Your task to perform on an android device: toggle notification dots Image 0: 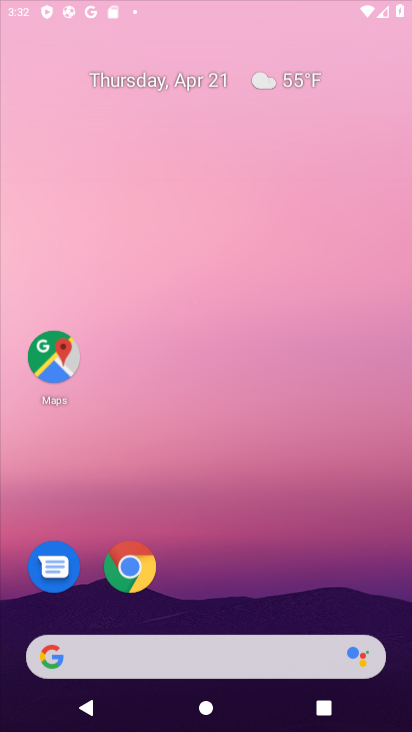
Step 0: click (235, 135)
Your task to perform on an android device: toggle notification dots Image 1: 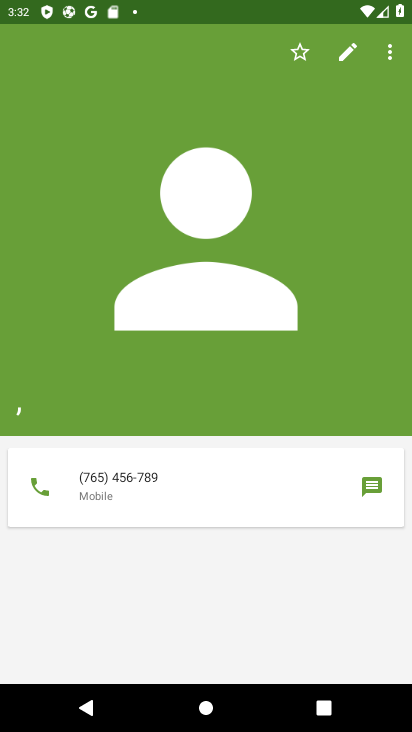
Step 1: press home button
Your task to perform on an android device: toggle notification dots Image 2: 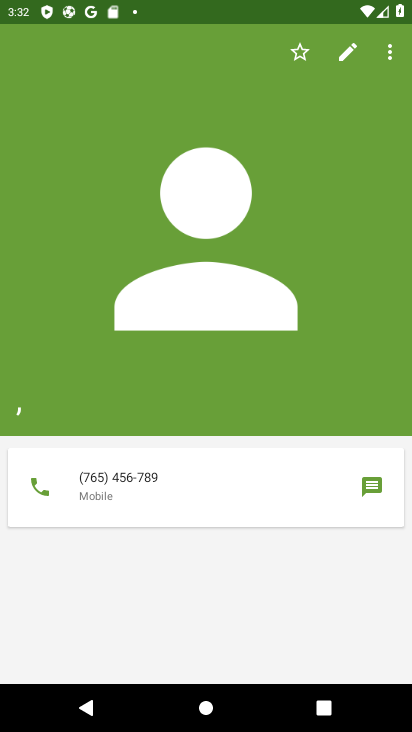
Step 2: press home button
Your task to perform on an android device: toggle notification dots Image 3: 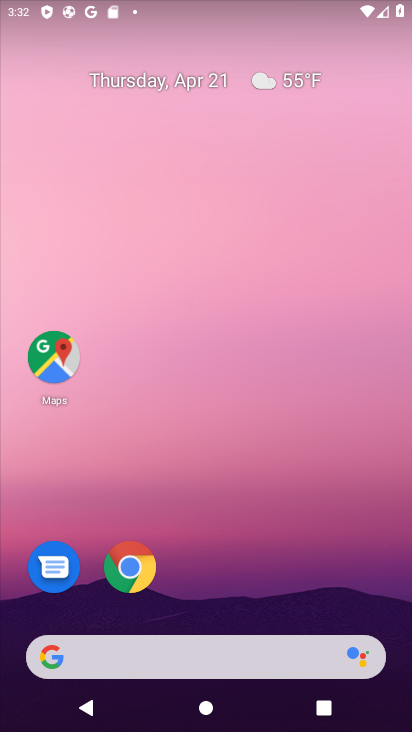
Step 3: drag from (231, 612) to (283, 119)
Your task to perform on an android device: toggle notification dots Image 4: 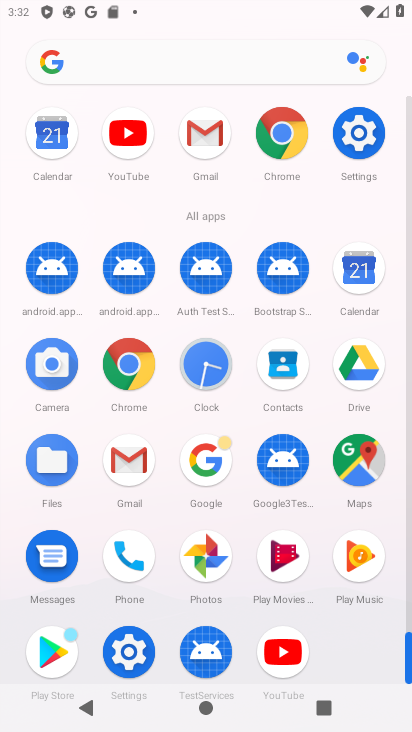
Step 4: click (127, 646)
Your task to perform on an android device: toggle notification dots Image 5: 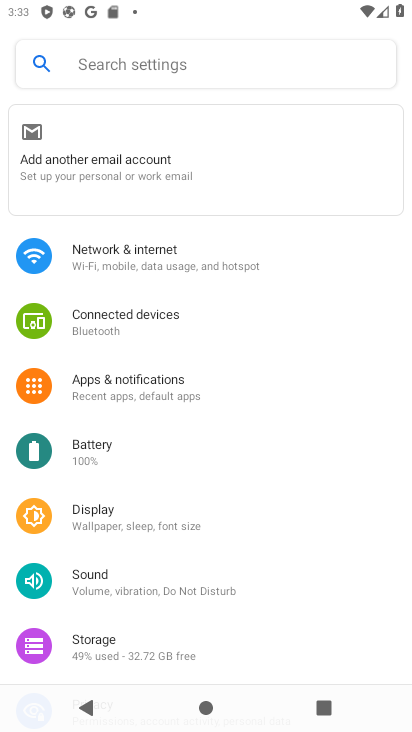
Step 5: click (137, 389)
Your task to perform on an android device: toggle notification dots Image 6: 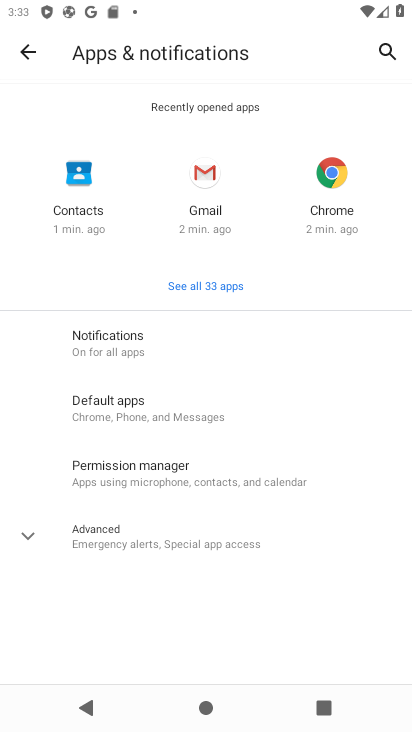
Step 6: click (159, 338)
Your task to perform on an android device: toggle notification dots Image 7: 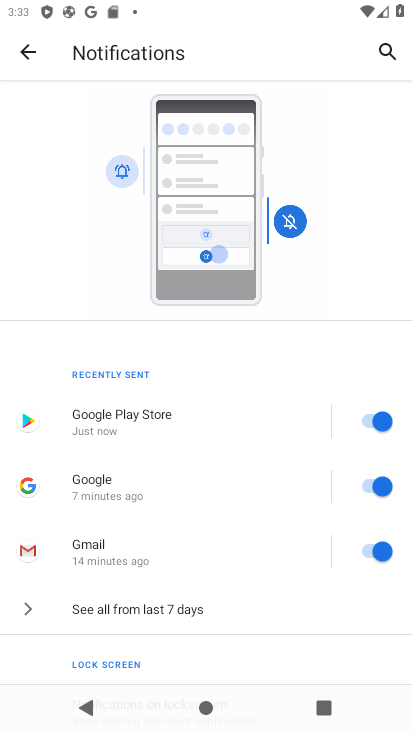
Step 7: drag from (228, 633) to (260, 289)
Your task to perform on an android device: toggle notification dots Image 8: 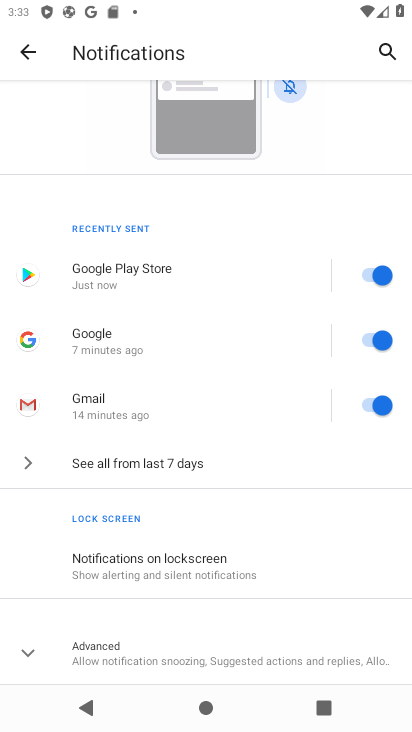
Step 8: click (135, 647)
Your task to perform on an android device: toggle notification dots Image 9: 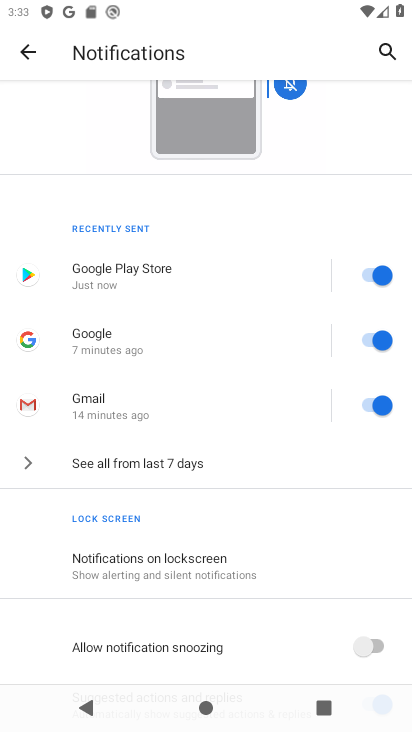
Step 9: drag from (238, 611) to (240, 242)
Your task to perform on an android device: toggle notification dots Image 10: 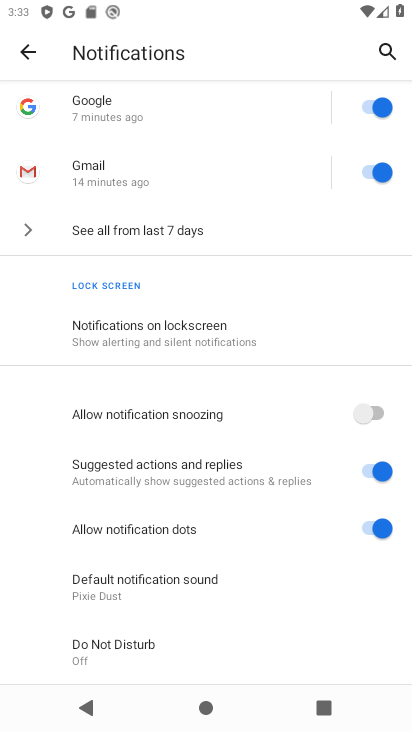
Step 10: click (365, 526)
Your task to perform on an android device: toggle notification dots Image 11: 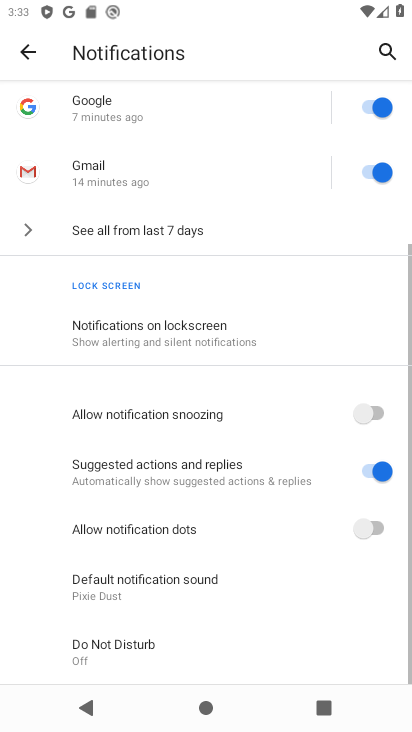
Step 11: task complete